Your task to perform on an android device: turn off notifications in google photos Image 0: 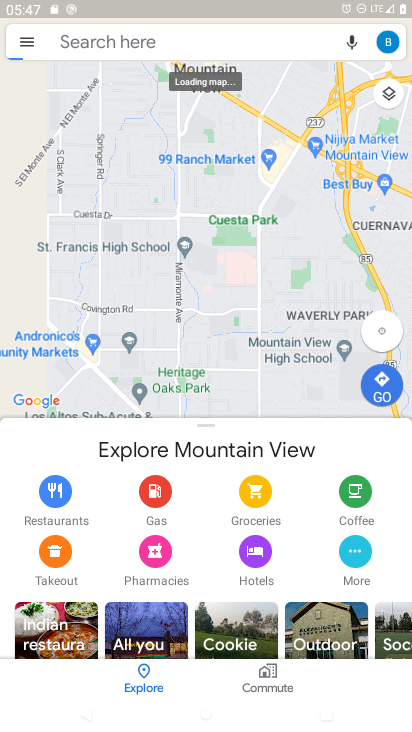
Step 0: press home button
Your task to perform on an android device: turn off notifications in google photos Image 1: 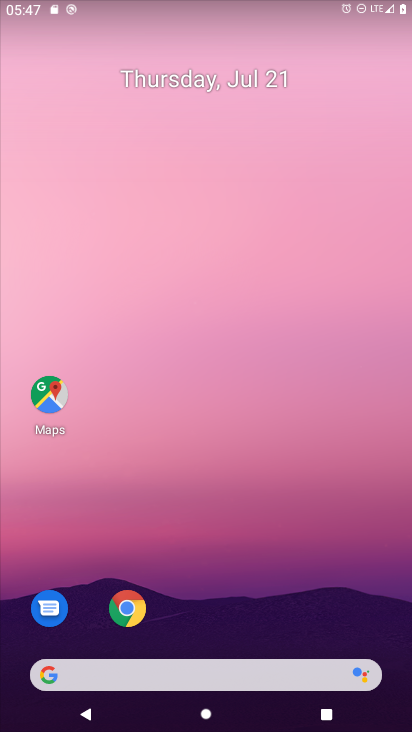
Step 1: drag from (266, 679) to (227, 4)
Your task to perform on an android device: turn off notifications in google photos Image 2: 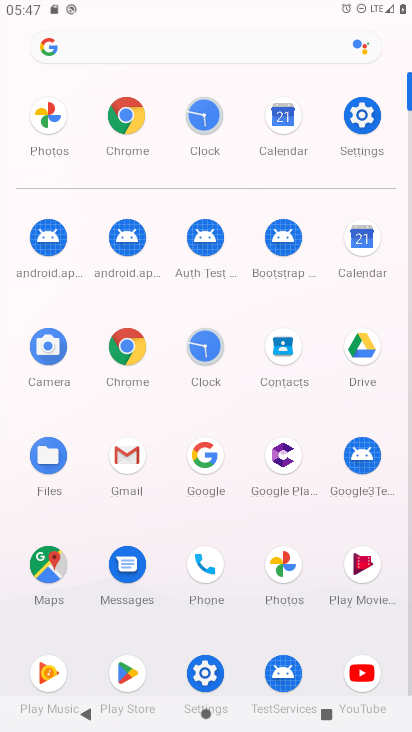
Step 2: click (290, 565)
Your task to perform on an android device: turn off notifications in google photos Image 3: 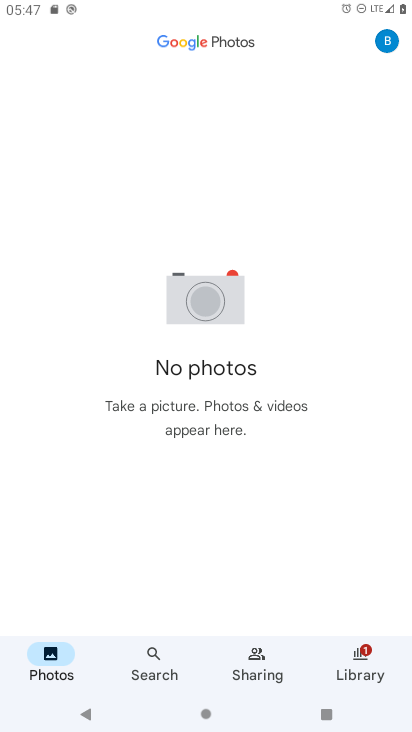
Step 3: click (392, 44)
Your task to perform on an android device: turn off notifications in google photos Image 4: 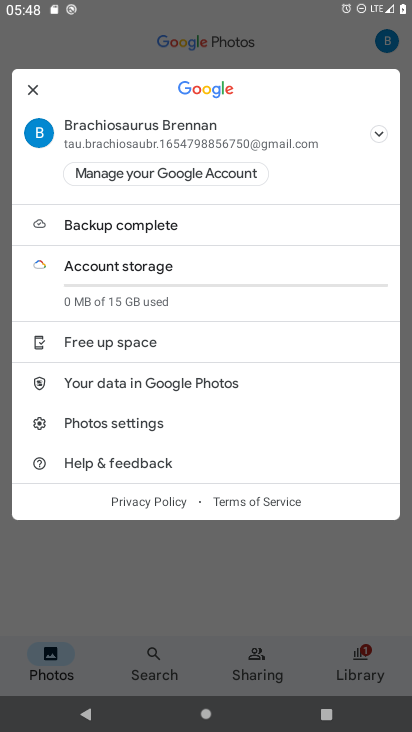
Step 4: click (155, 426)
Your task to perform on an android device: turn off notifications in google photos Image 5: 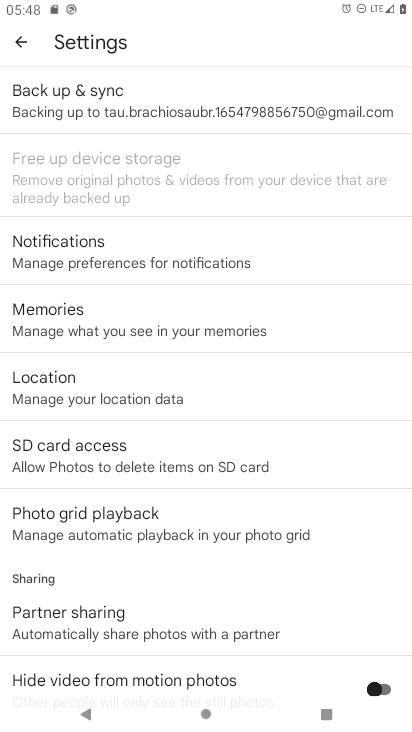
Step 5: click (91, 262)
Your task to perform on an android device: turn off notifications in google photos Image 6: 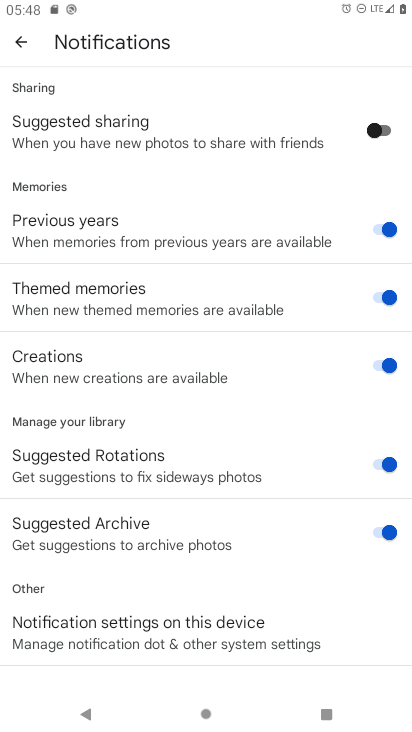
Step 6: click (257, 641)
Your task to perform on an android device: turn off notifications in google photos Image 7: 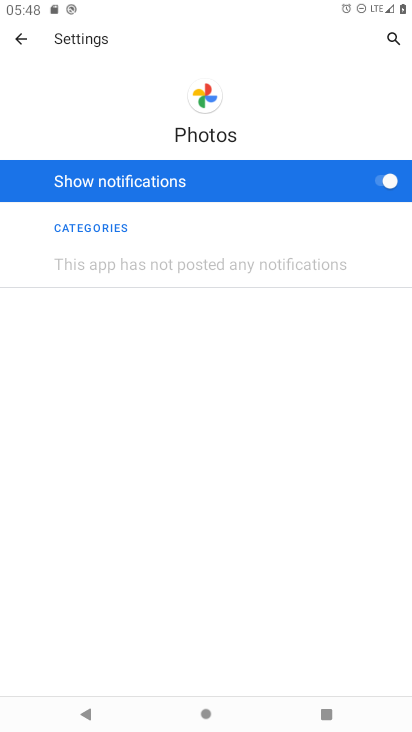
Step 7: click (386, 185)
Your task to perform on an android device: turn off notifications in google photos Image 8: 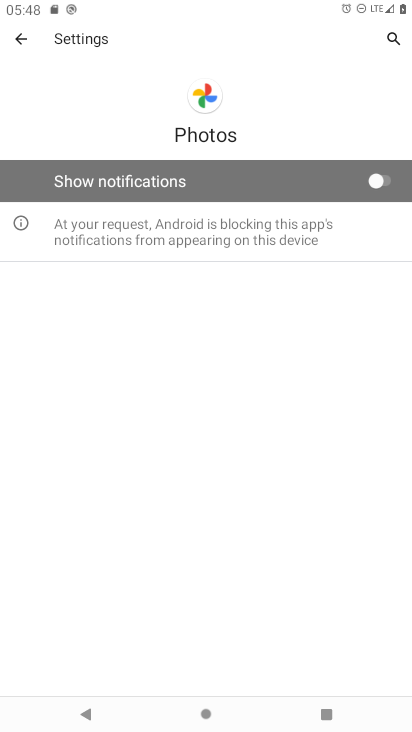
Step 8: task complete